Your task to perform on an android device: Open Youtube and go to "Your channel" Image 0: 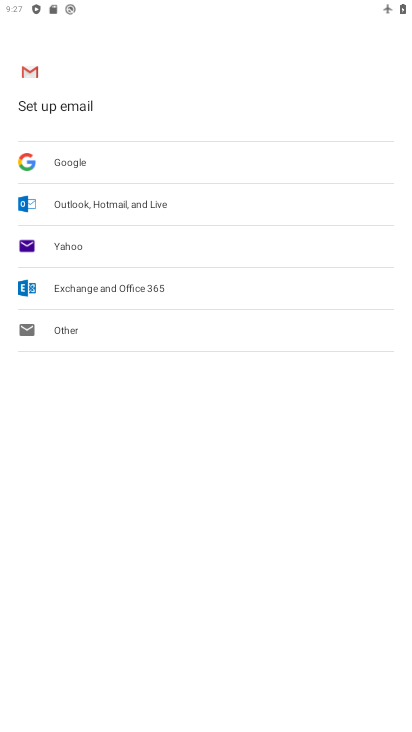
Step 0: press home button
Your task to perform on an android device: Open Youtube and go to "Your channel" Image 1: 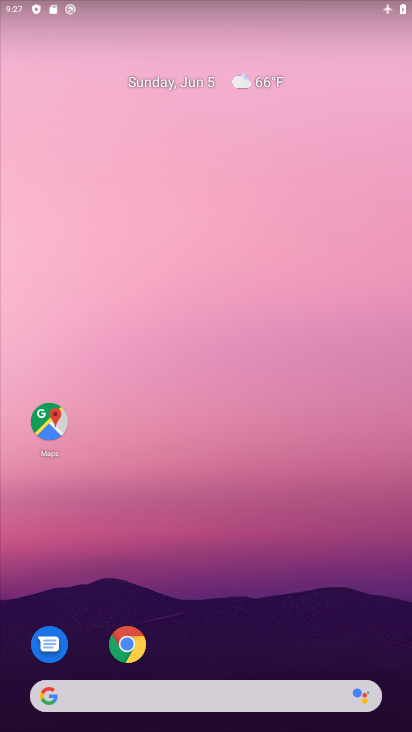
Step 1: drag from (205, 586) to (299, 60)
Your task to perform on an android device: Open Youtube and go to "Your channel" Image 2: 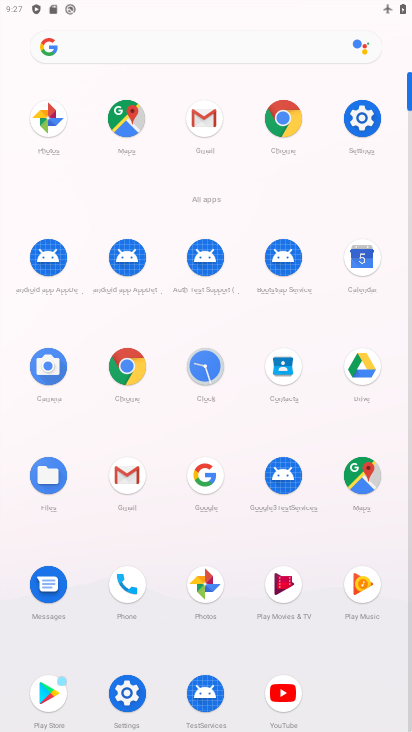
Step 2: click (286, 686)
Your task to perform on an android device: Open Youtube and go to "Your channel" Image 3: 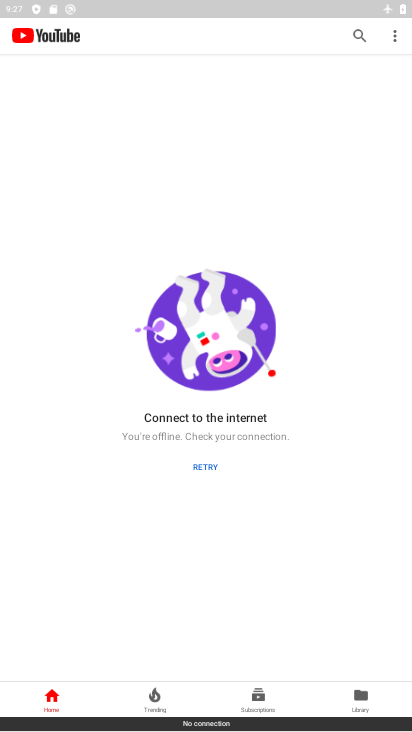
Step 3: task complete